Your task to perform on an android device: Go to ESPN.com Image 0: 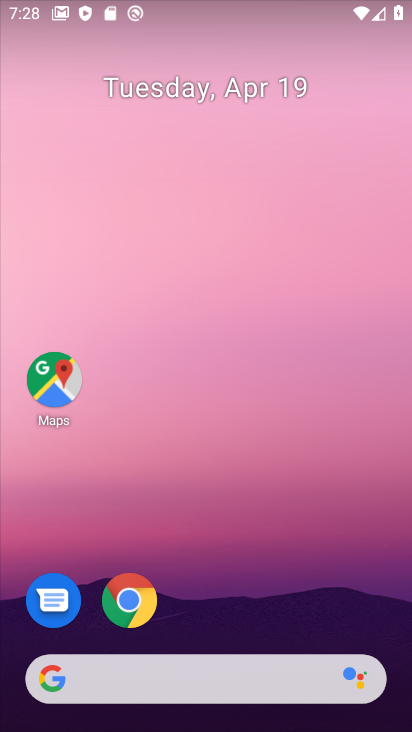
Step 0: drag from (227, 588) to (194, 95)
Your task to perform on an android device: Go to ESPN.com Image 1: 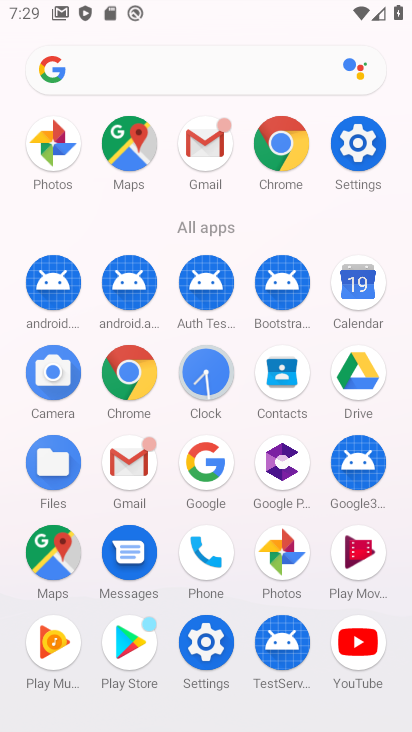
Step 1: click (295, 123)
Your task to perform on an android device: Go to ESPN.com Image 2: 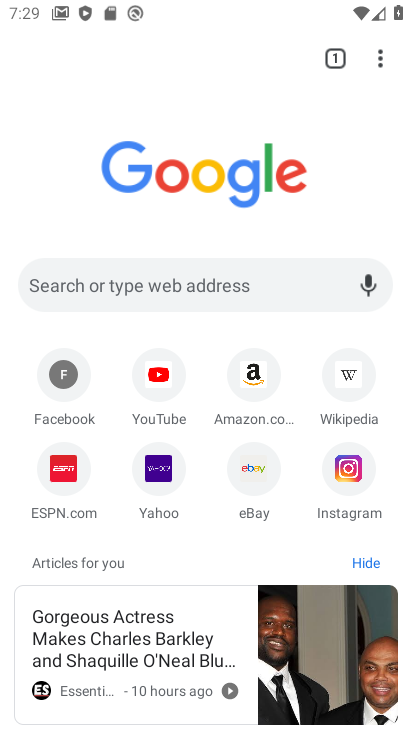
Step 2: click (167, 286)
Your task to perform on an android device: Go to ESPN.com Image 3: 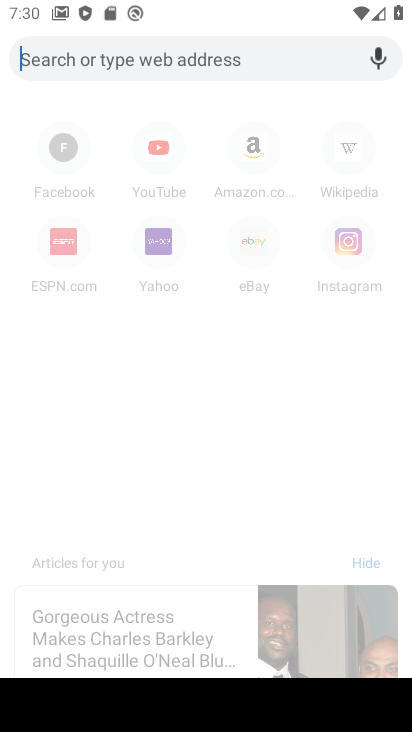
Step 3: type "espn.com"
Your task to perform on an android device: Go to ESPN.com Image 4: 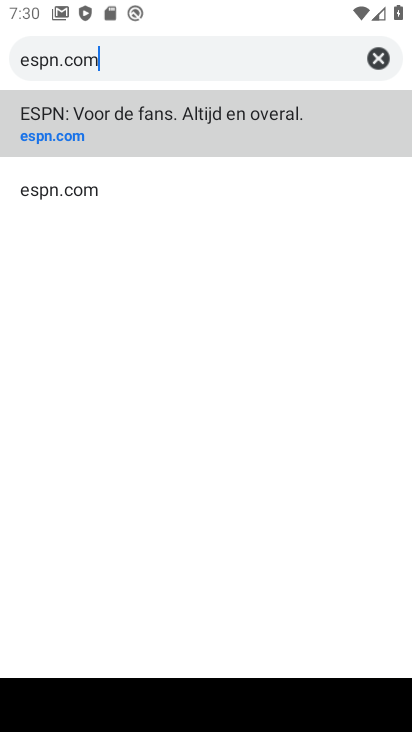
Step 4: click (186, 125)
Your task to perform on an android device: Go to ESPN.com Image 5: 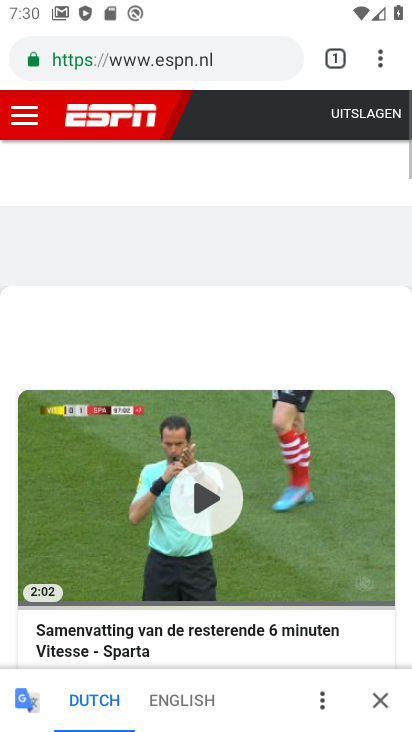
Step 5: task complete